Your task to perform on an android device: open a bookmark in the chrome app Image 0: 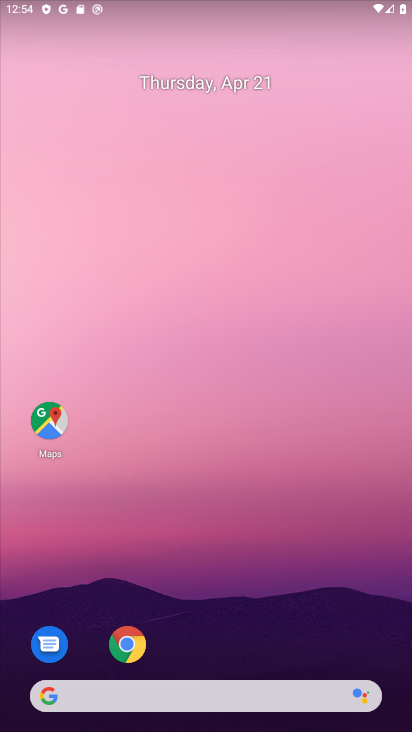
Step 0: click (138, 646)
Your task to perform on an android device: open a bookmark in the chrome app Image 1: 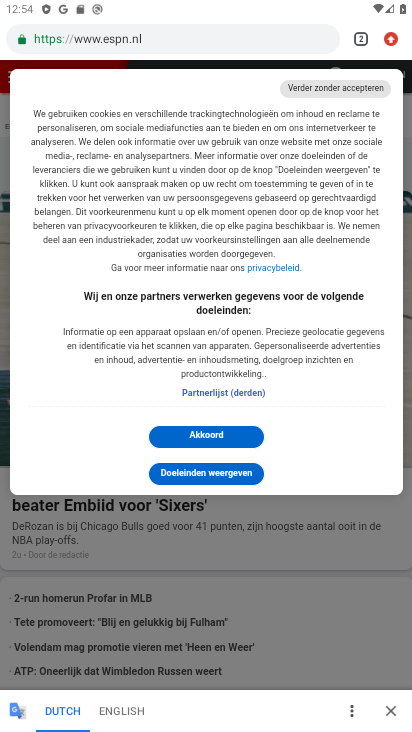
Step 1: click (389, 53)
Your task to perform on an android device: open a bookmark in the chrome app Image 2: 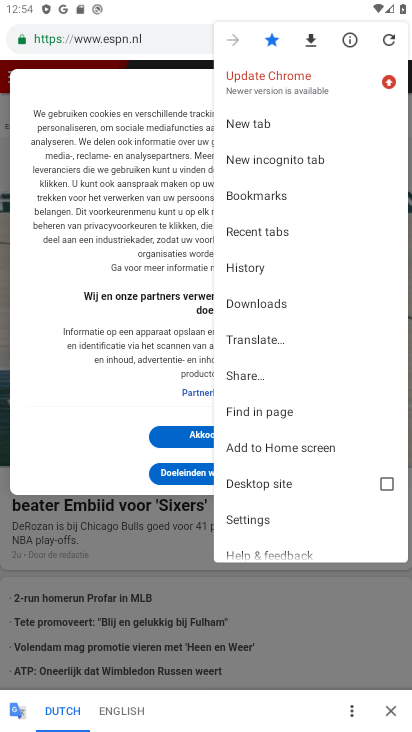
Step 2: click (277, 199)
Your task to perform on an android device: open a bookmark in the chrome app Image 3: 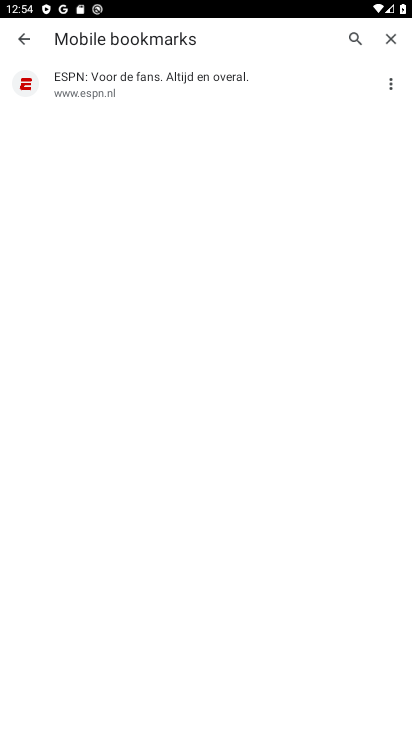
Step 3: click (164, 101)
Your task to perform on an android device: open a bookmark in the chrome app Image 4: 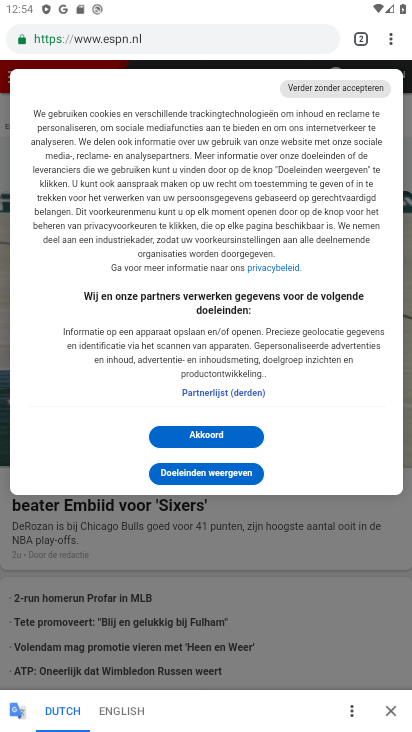
Step 4: task complete